Your task to perform on an android device: snooze an email in the gmail app Image 0: 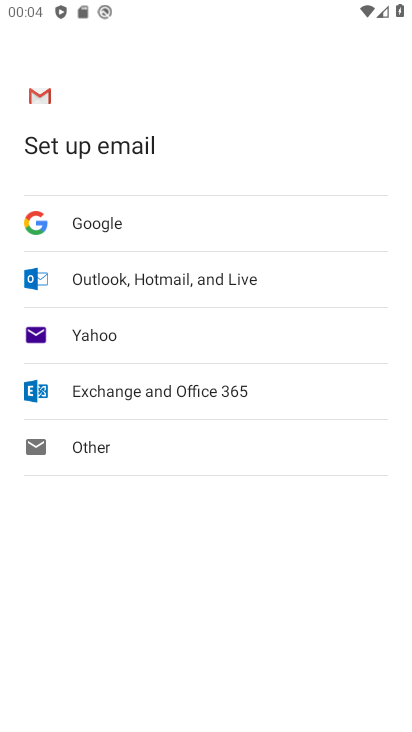
Step 0: press home button
Your task to perform on an android device: snooze an email in the gmail app Image 1: 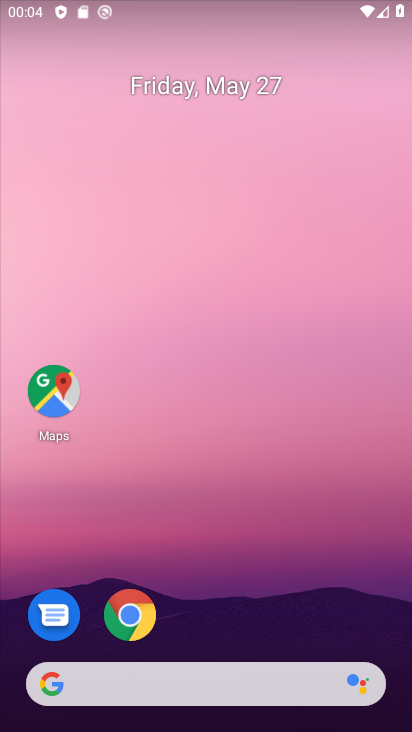
Step 1: drag from (356, 624) to (373, 196)
Your task to perform on an android device: snooze an email in the gmail app Image 2: 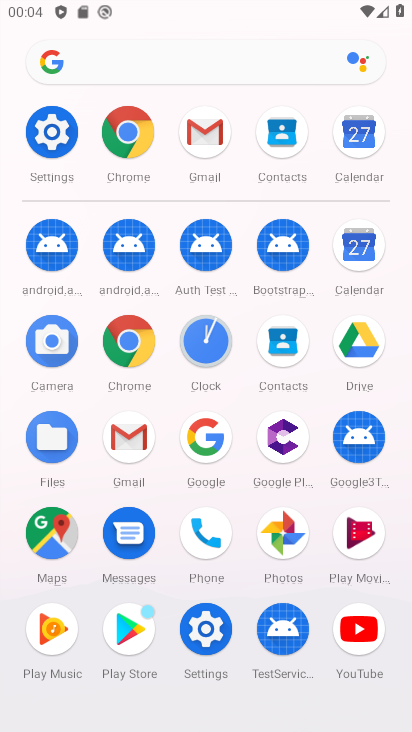
Step 2: click (138, 443)
Your task to perform on an android device: snooze an email in the gmail app Image 3: 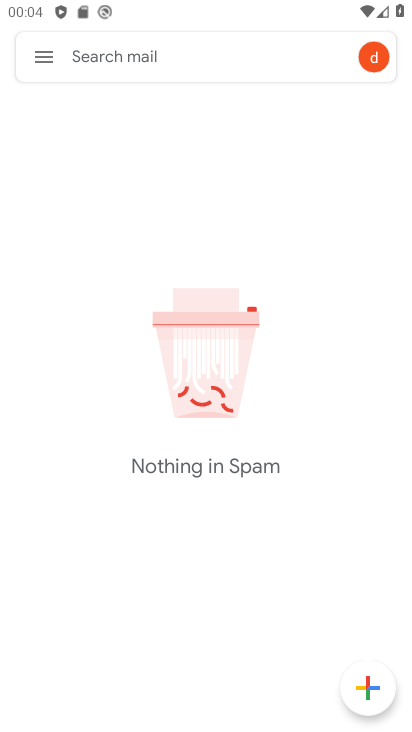
Step 3: click (47, 61)
Your task to perform on an android device: snooze an email in the gmail app Image 4: 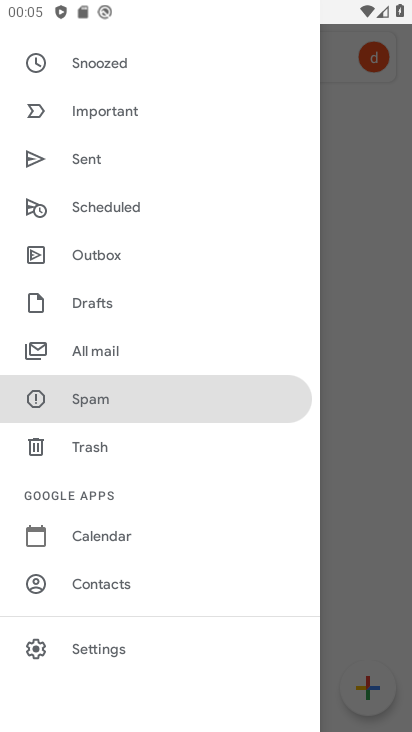
Step 4: click (122, 66)
Your task to perform on an android device: snooze an email in the gmail app Image 5: 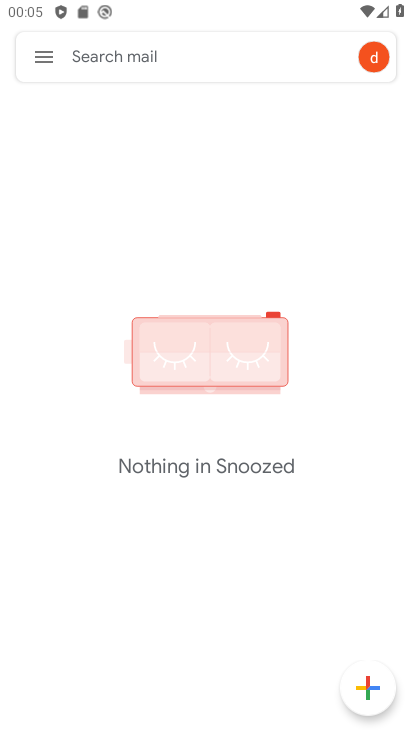
Step 5: task complete